Your task to perform on an android device: change the clock style Image 0: 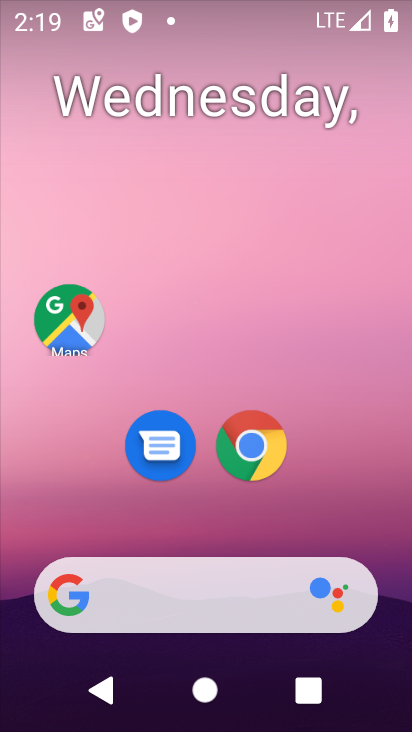
Step 0: drag from (190, 524) to (237, 227)
Your task to perform on an android device: change the clock style Image 1: 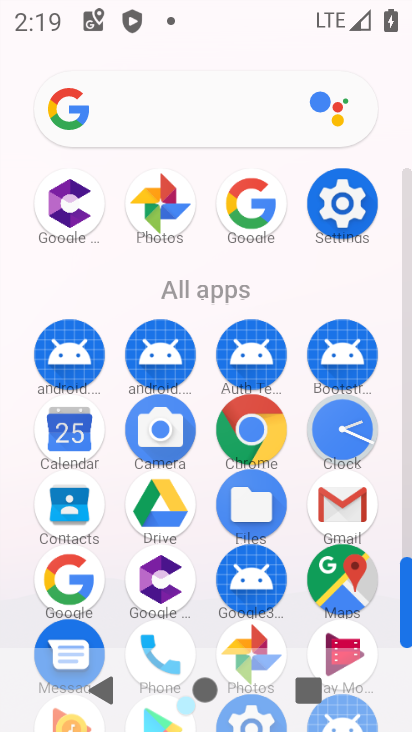
Step 1: click (365, 426)
Your task to perform on an android device: change the clock style Image 2: 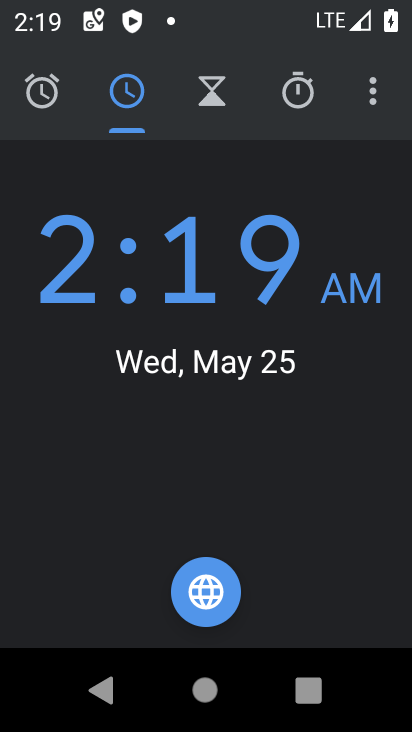
Step 2: click (373, 86)
Your task to perform on an android device: change the clock style Image 3: 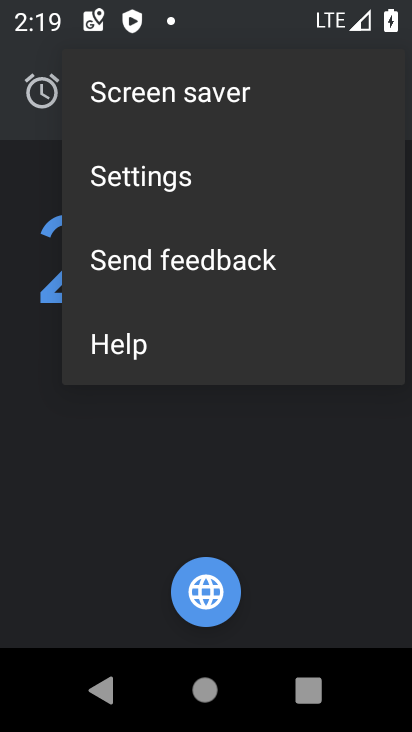
Step 3: click (162, 177)
Your task to perform on an android device: change the clock style Image 4: 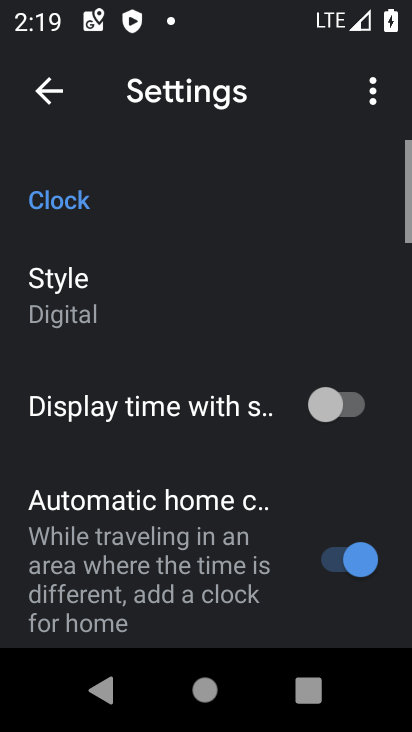
Step 4: click (89, 278)
Your task to perform on an android device: change the clock style Image 5: 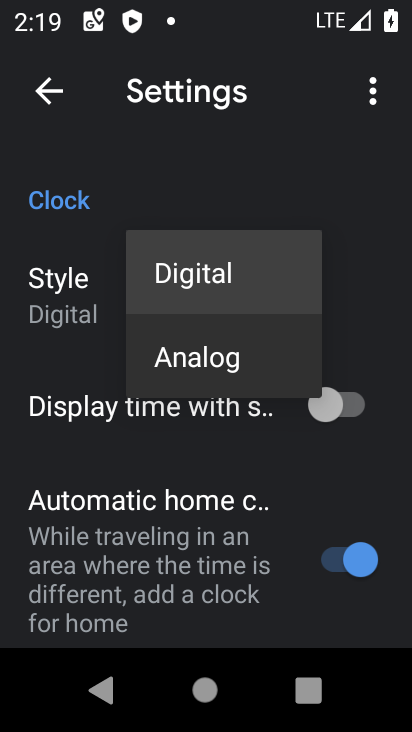
Step 5: click (186, 360)
Your task to perform on an android device: change the clock style Image 6: 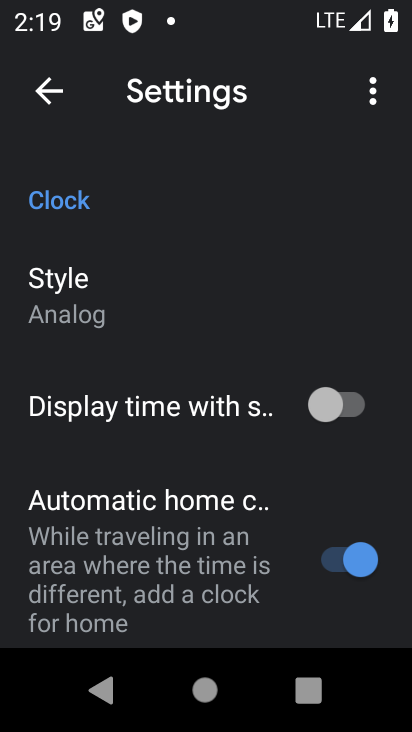
Step 6: task complete